Your task to perform on an android device: check data usage Image 0: 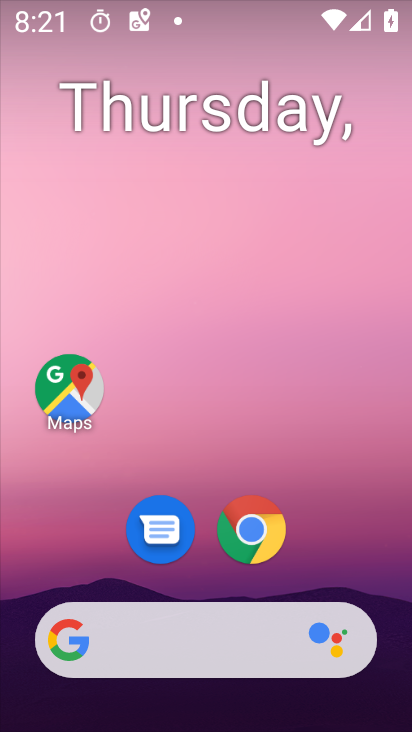
Step 0: drag from (387, 707) to (380, 351)
Your task to perform on an android device: check data usage Image 1: 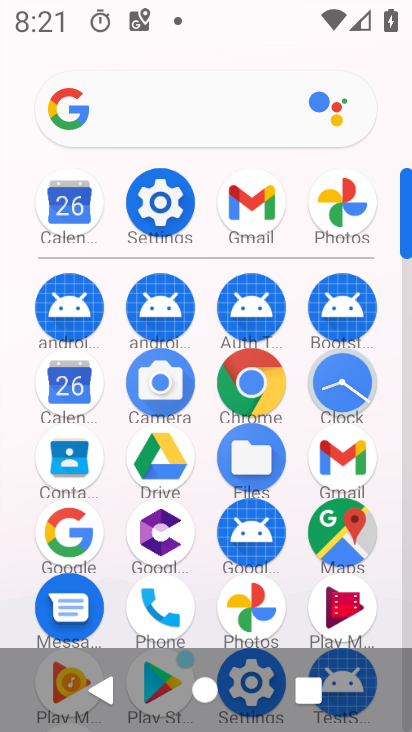
Step 1: click (170, 210)
Your task to perform on an android device: check data usage Image 2: 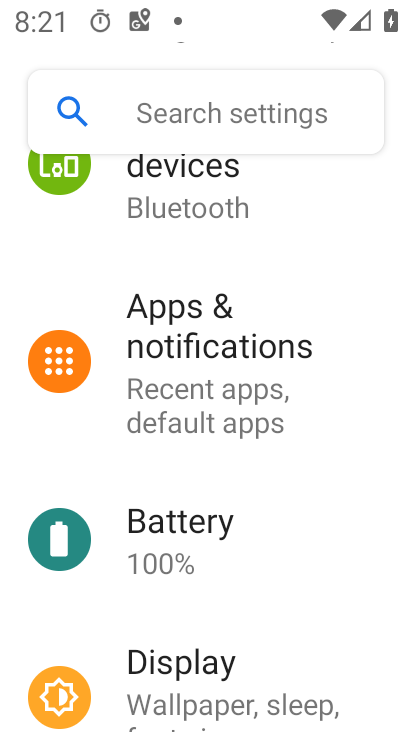
Step 2: drag from (327, 238) to (373, 617)
Your task to perform on an android device: check data usage Image 3: 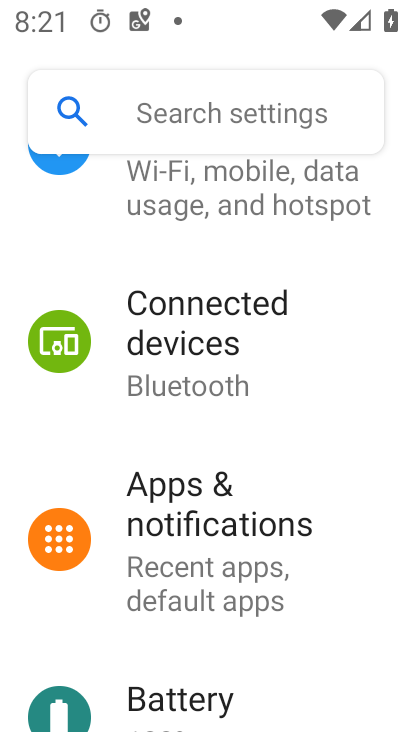
Step 3: click (229, 191)
Your task to perform on an android device: check data usage Image 4: 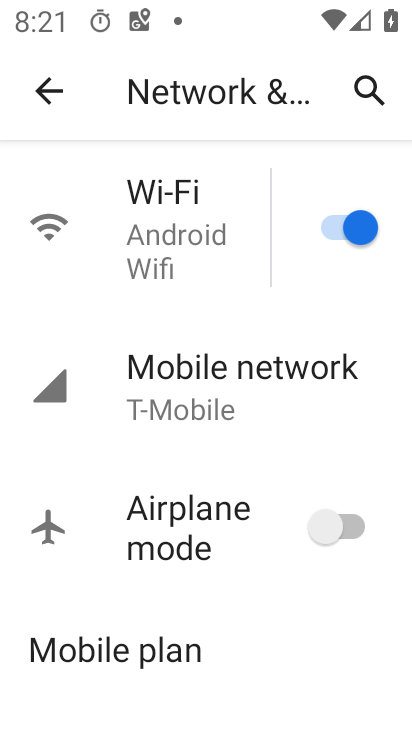
Step 4: click (181, 368)
Your task to perform on an android device: check data usage Image 5: 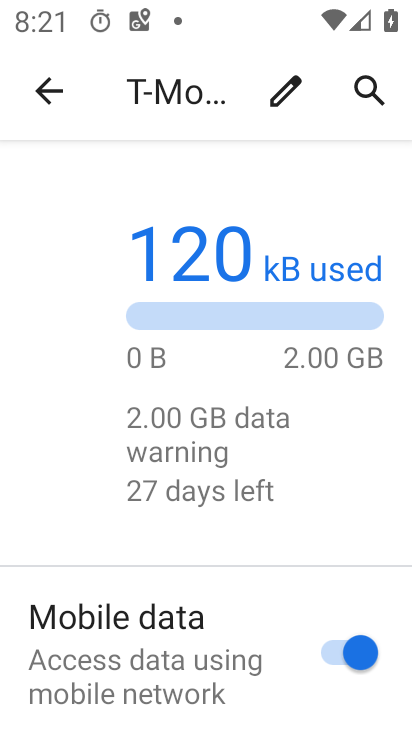
Step 5: task complete